Your task to perform on an android device: stop showing notifications on the lock screen Image 0: 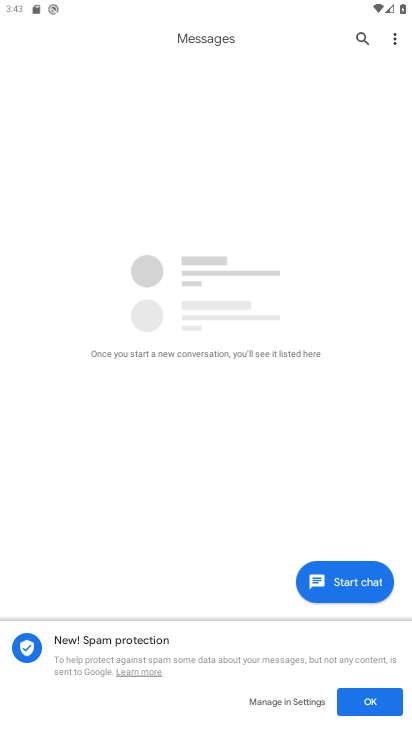
Step 0: press home button
Your task to perform on an android device: stop showing notifications on the lock screen Image 1: 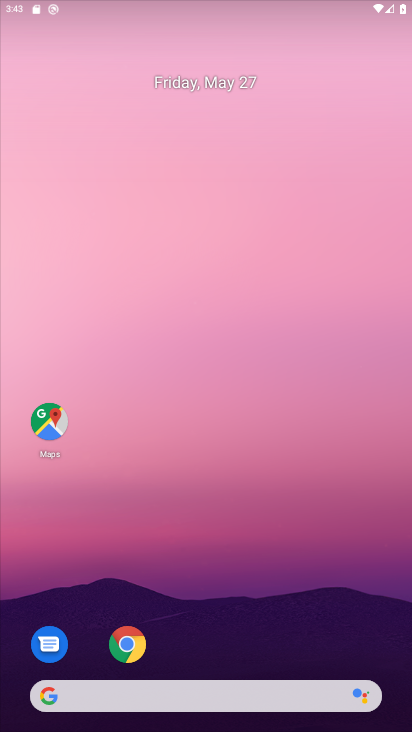
Step 1: drag from (282, 428) to (191, 34)
Your task to perform on an android device: stop showing notifications on the lock screen Image 2: 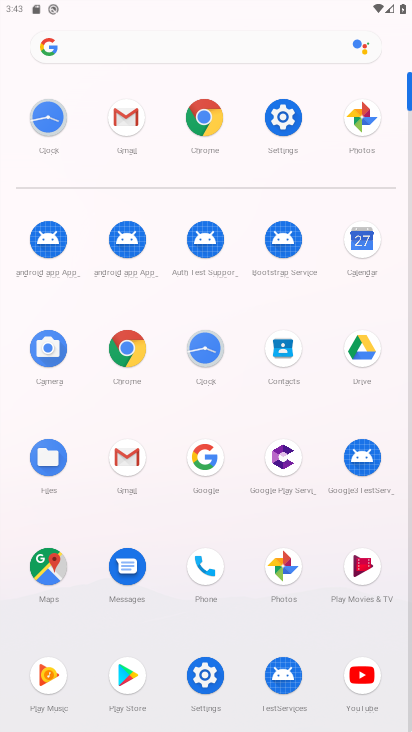
Step 2: click (292, 120)
Your task to perform on an android device: stop showing notifications on the lock screen Image 3: 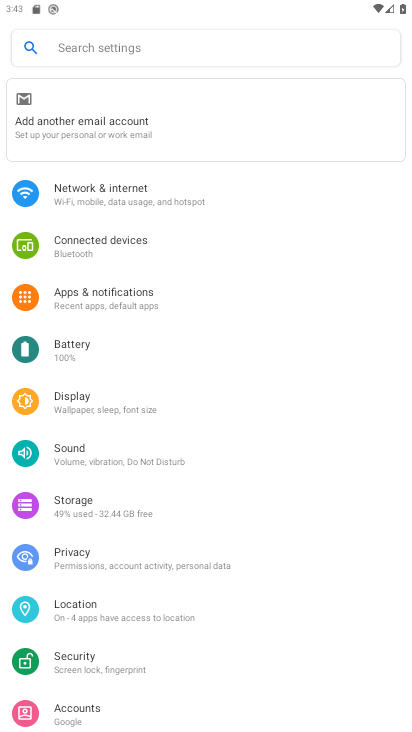
Step 3: click (150, 302)
Your task to perform on an android device: stop showing notifications on the lock screen Image 4: 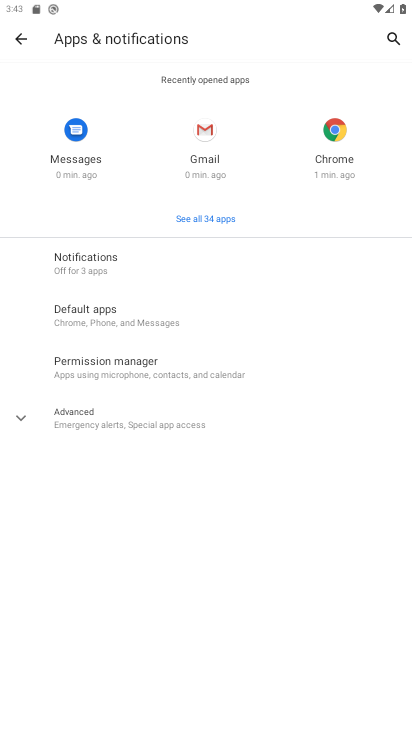
Step 4: click (174, 264)
Your task to perform on an android device: stop showing notifications on the lock screen Image 5: 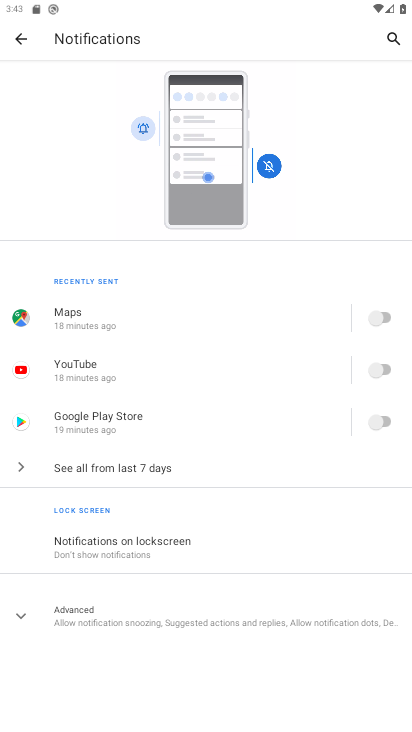
Step 5: click (171, 536)
Your task to perform on an android device: stop showing notifications on the lock screen Image 6: 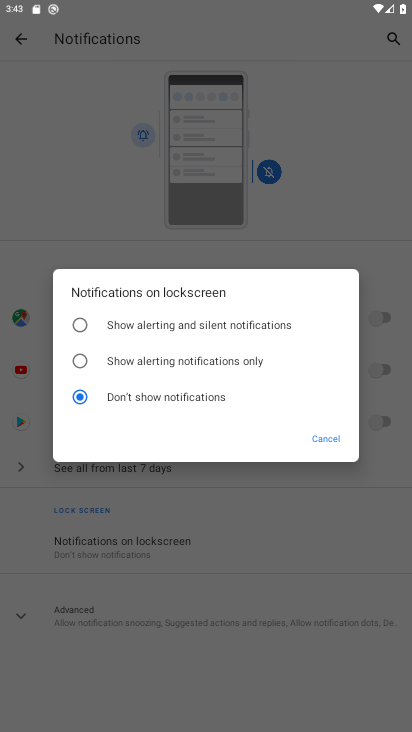
Step 6: task complete